Your task to perform on an android device: Open settings on Google Maps Image 0: 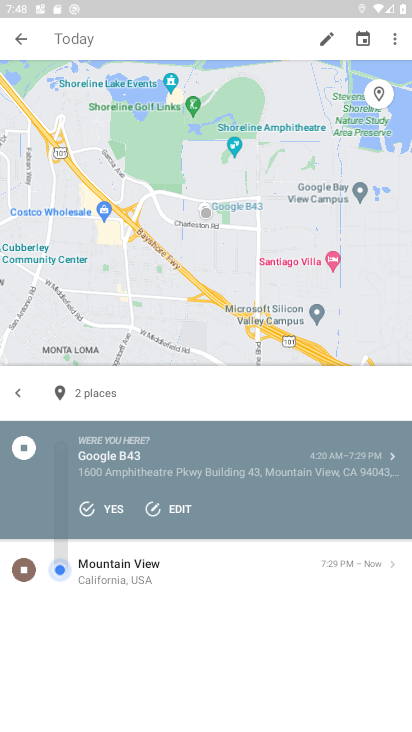
Step 0: drag from (178, 673) to (202, 608)
Your task to perform on an android device: Open settings on Google Maps Image 1: 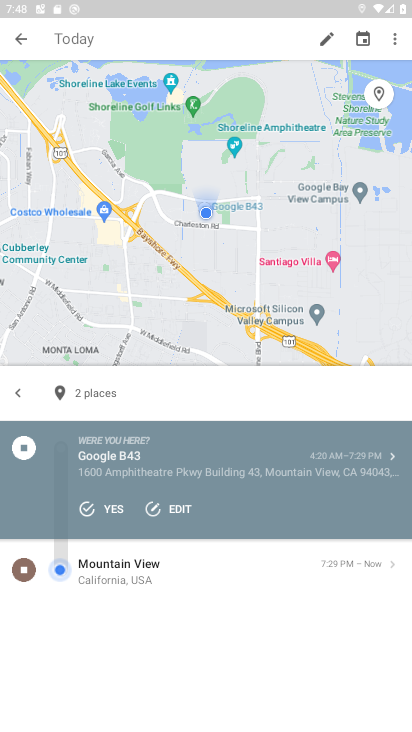
Step 1: press home button
Your task to perform on an android device: Open settings on Google Maps Image 2: 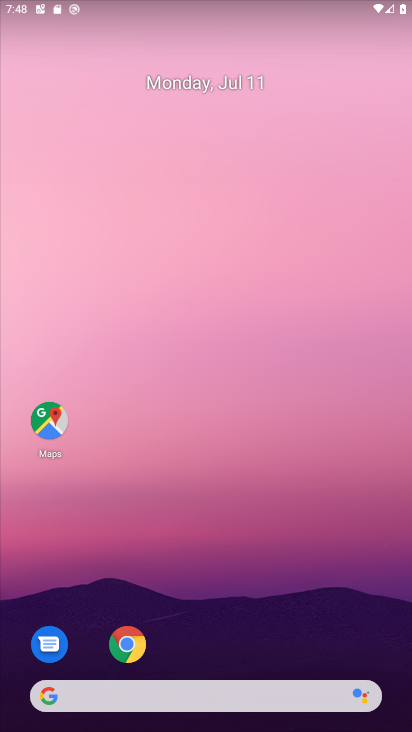
Step 2: drag from (285, 676) to (297, 267)
Your task to perform on an android device: Open settings on Google Maps Image 3: 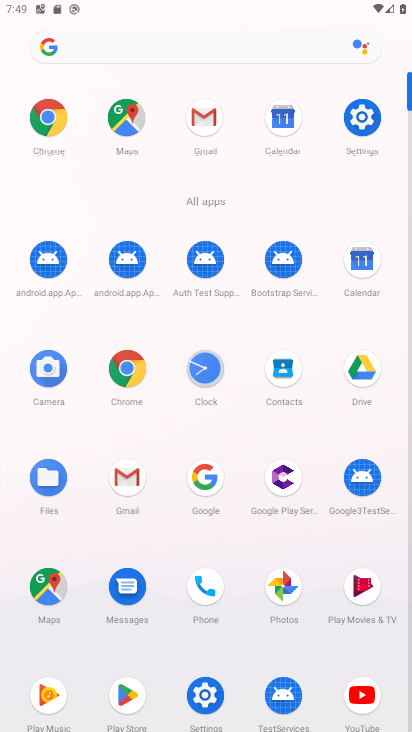
Step 3: click (115, 112)
Your task to perform on an android device: Open settings on Google Maps Image 4: 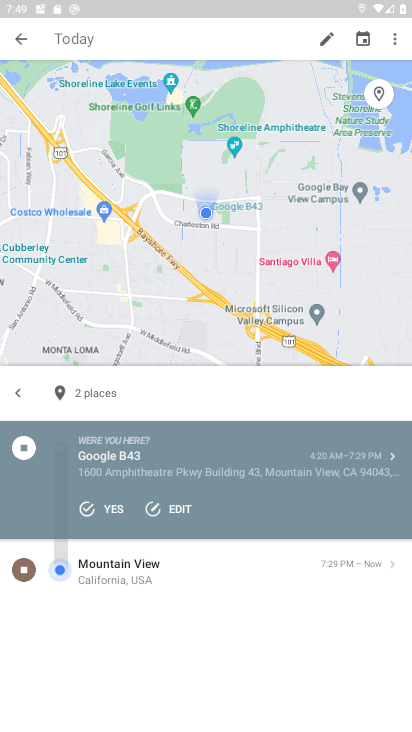
Step 4: click (9, 30)
Your task to perform on an android device: Open settings on Google Maps Image 5: 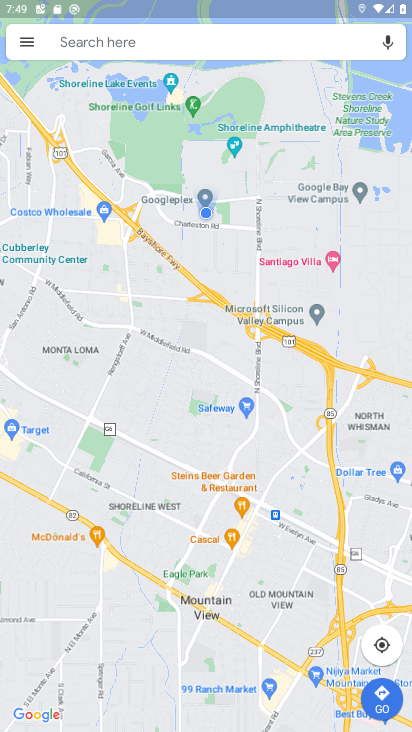
Step 5: click (46, 24)
Your task to perform on an android device: Open settings on Google Maps Image 6: 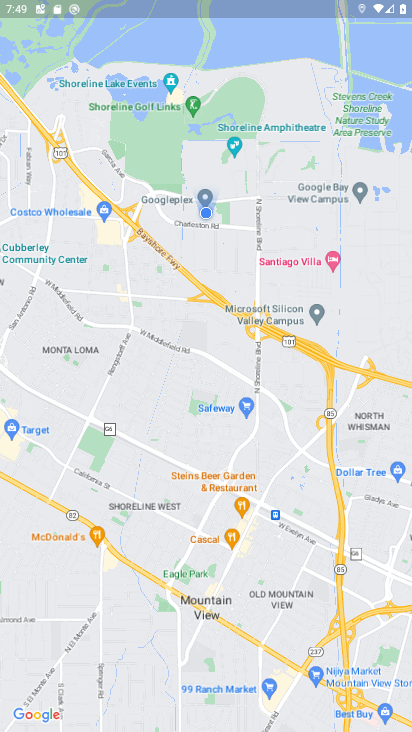
Step 6: drag from (139, 182) to (161, 622)
Your task to perform on an android device: Open settings on Google Maps Image 7: 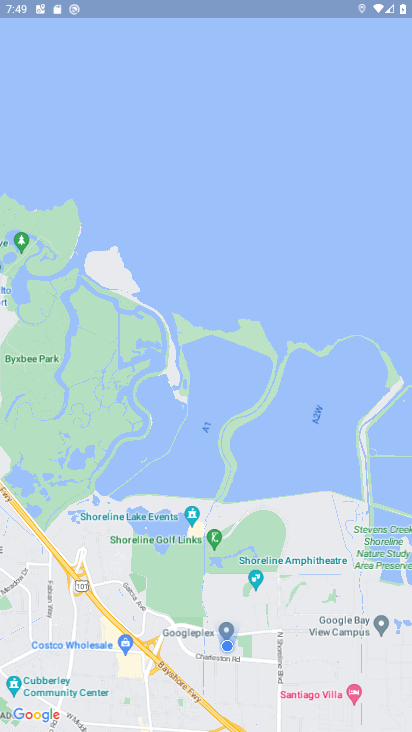
Step 7: click (101, 148)
Your task to perform on an android device: Open settings on Google Maps Image 8: 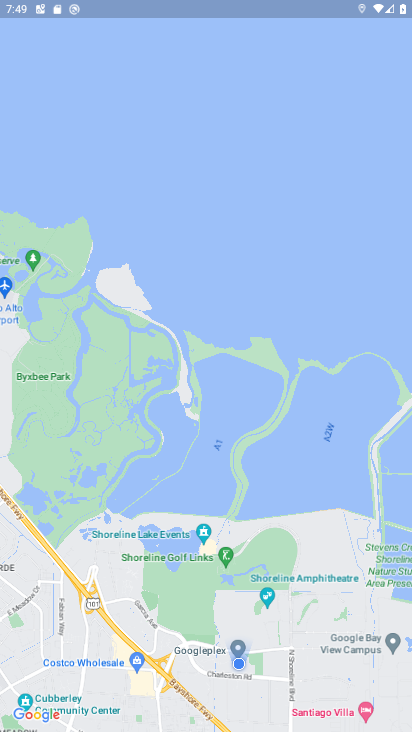
Step 8: click (234, 222)
Your task to perform on an android device: Open settings on Google Maps Image 9: 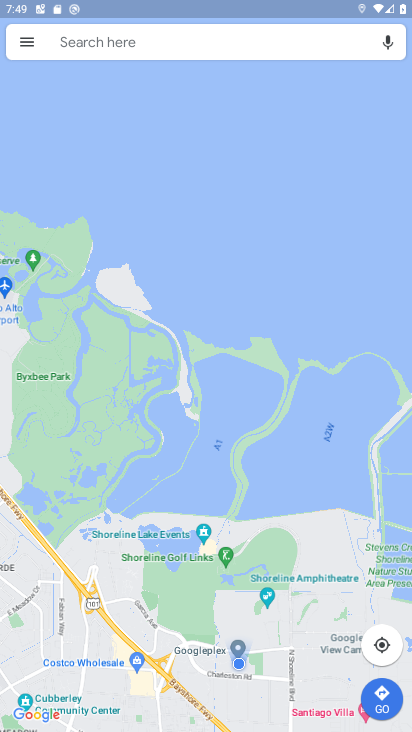
Step 9: click (22, 37)
Your task to perform on an android device: Open settings on Google Maps Image 10: 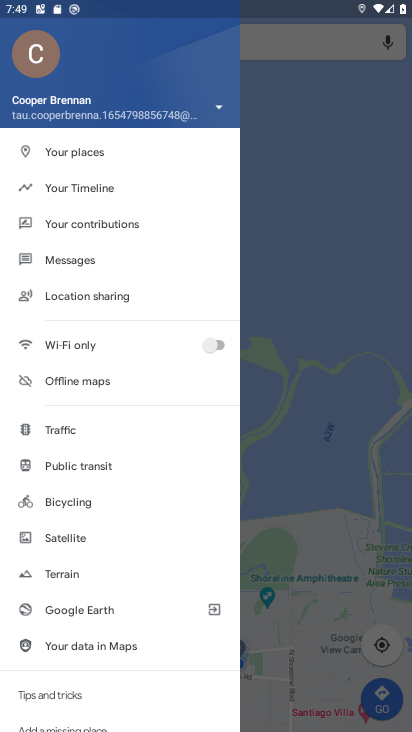
Step 10: drag from (101, 673) to (210, 376)
Your task to perform on an android device: Open settings on Google Maps Image 11: 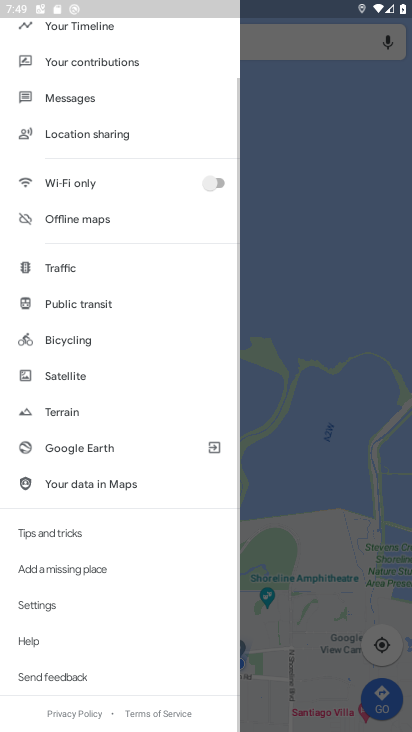
Step 11: click (66, 602)
Your task to perform on an android device: Open settings on Google Maps Image 12: 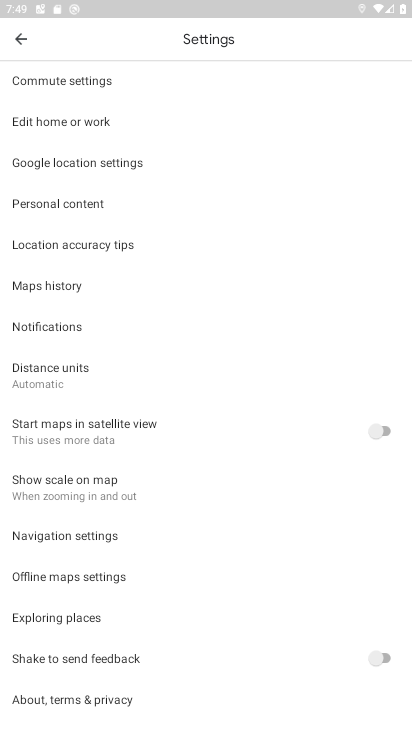
Step 12: task complete